Your task to perform on an android device: check android version Image 0: 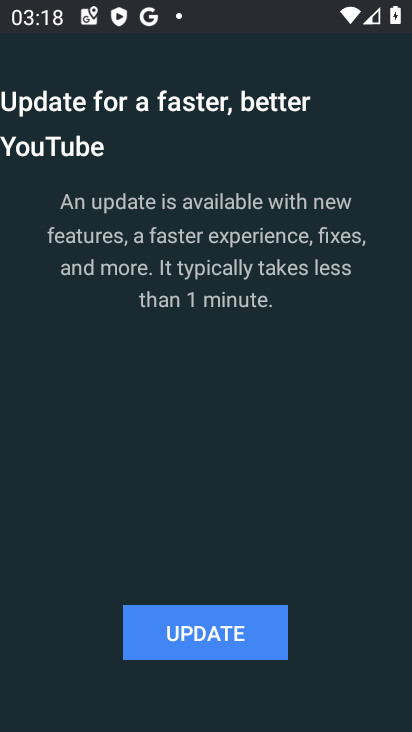
Step 0: press home button
Your task to perform on an android device: check android version Image 1: 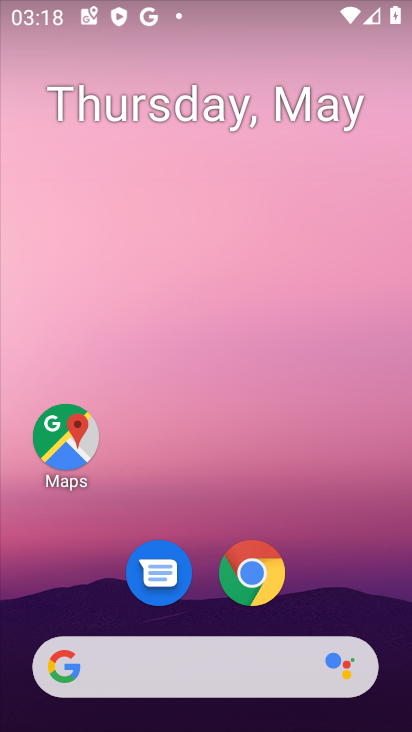
Step 1: drag from (309, 610) to (328, 230)
Your task to perform on an android device: check android version Image 2: 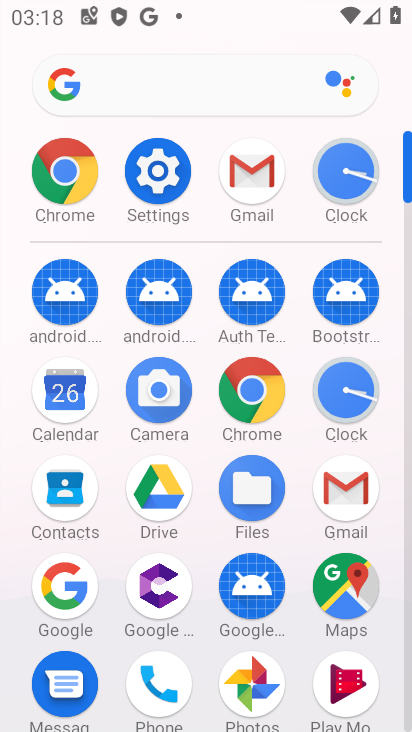
Step 2: click (159, 155)
Your task to perform on an android device: check android version Image 3: 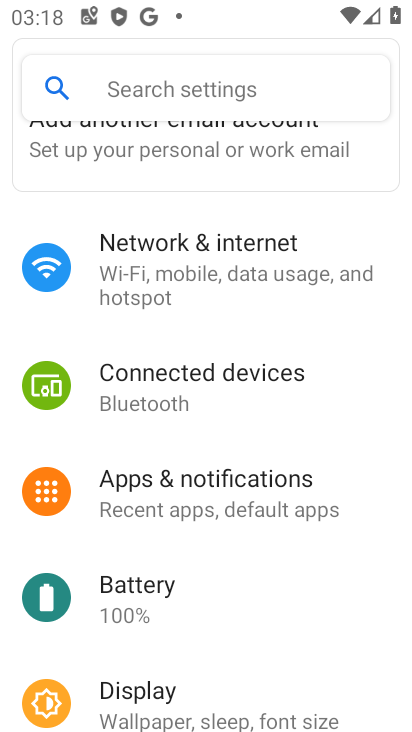
Step 3: drag from (221, 656) to (237, 262)
Your task to perform on an android device: check android version Image 4: 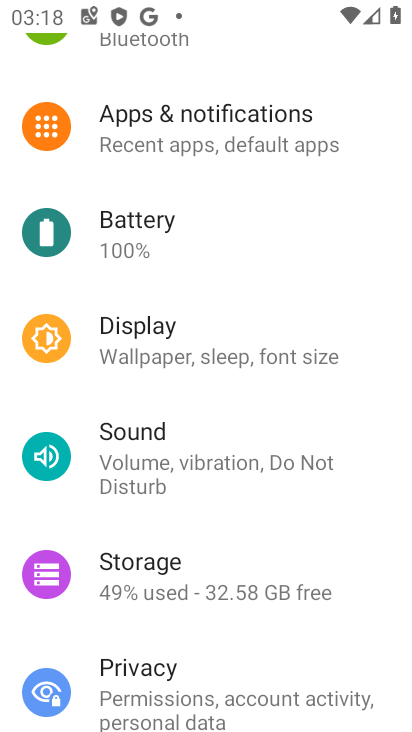
Step 4: drag from (227, 656) to (267, 194)
Your task to perform on an android device: check android version Image 5: 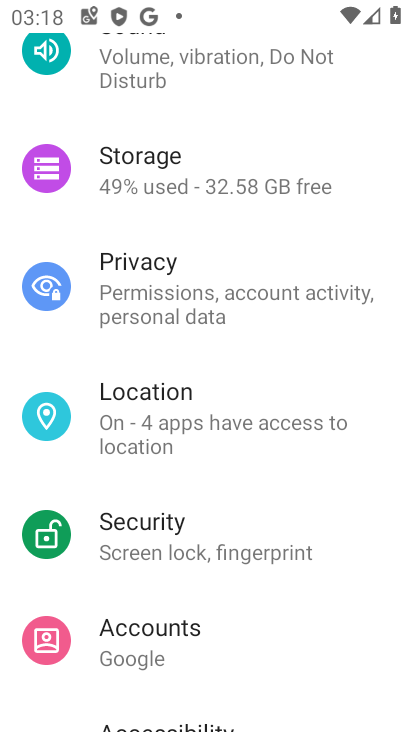
Step 5: click (220, 584)
Your task to perform on an android device: check android version Image 6: 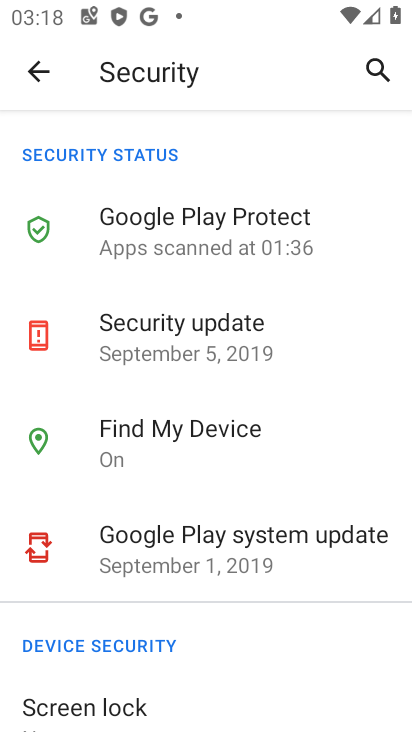
Step 6: click (46, 65)
Your task to perform on an android device: check android version Image 7: 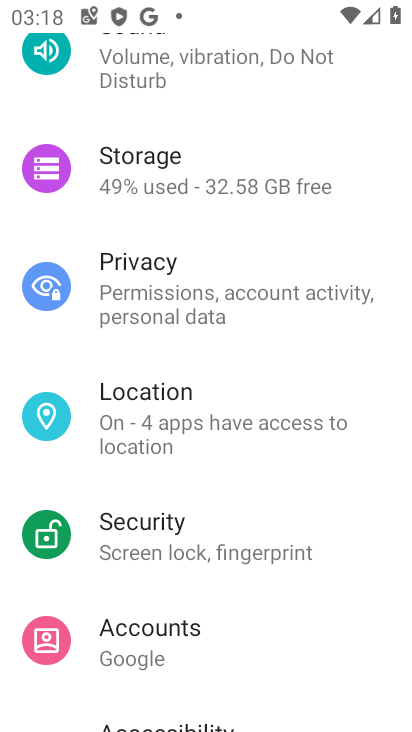
Step 7: drag from (204, 647) to (251, 159)
Your task to perform on an android device: check android version Image 8: 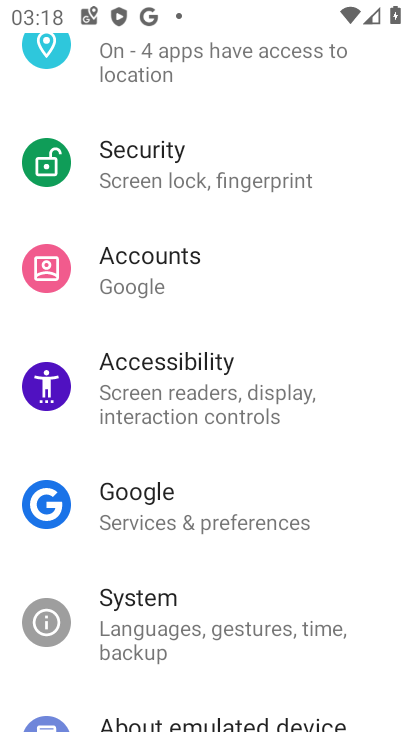
Step 8: drag from (191, 679) to (213, 224)
Your task to perform on an android device: check android version Image 9: 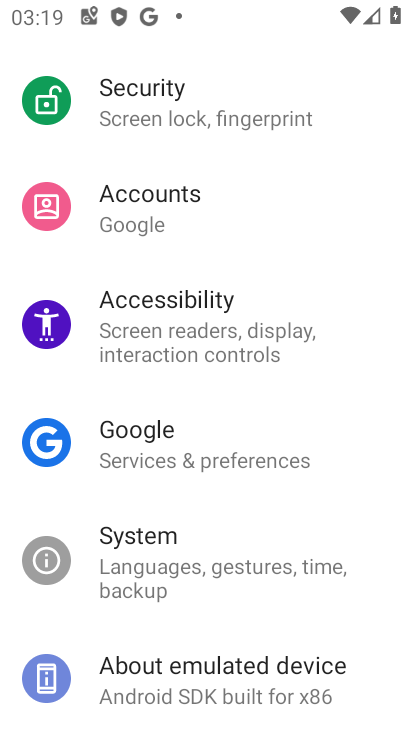
Step 9: click (207, 677)
Your task to perform on an android device: check android version Image 10: 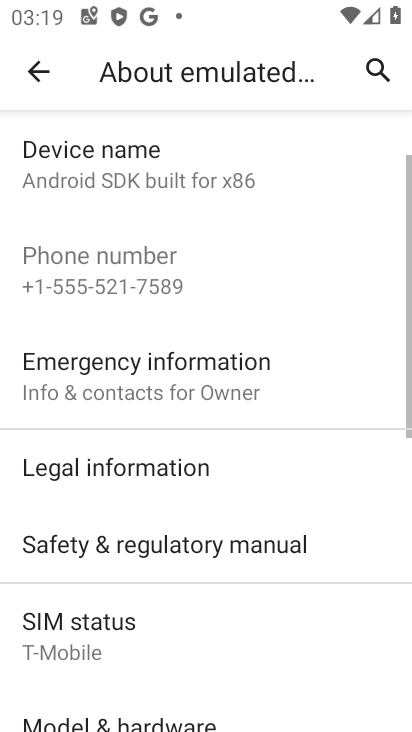
Step 10: task complete